Your task to perform on an android device: Show me popular videos on Youtube Image 0: 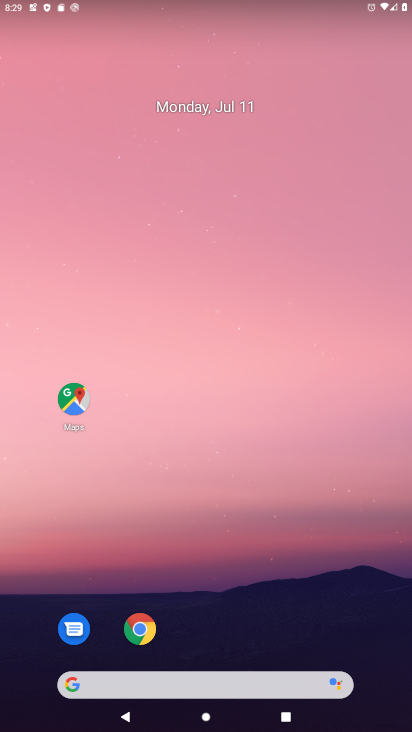
Step 0: drag from (220, 648) to (239, 120)
Your task to perform on an android device: Show me popular videos on Youtube Image 1: 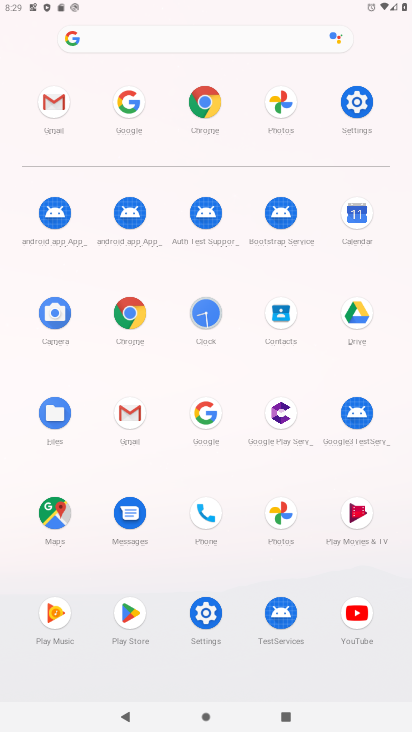
Step 1: click (354, 612)
Your task to perform on an android device: Show me popular videos on Youtube Image 2: 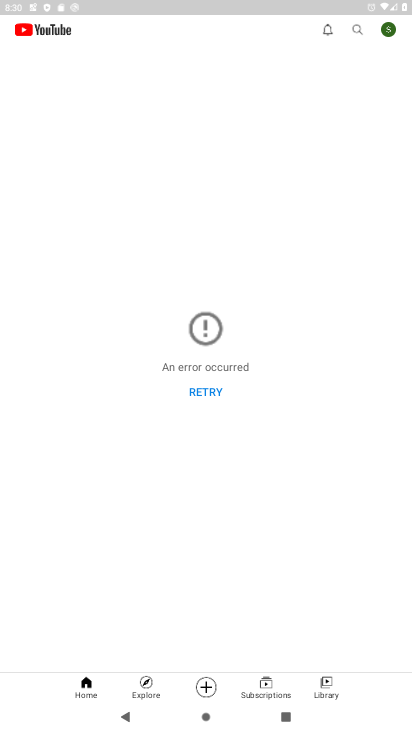
Step 2: task complete